Your task to perform on an android device: add a label to a message in the gmail app Image 0: 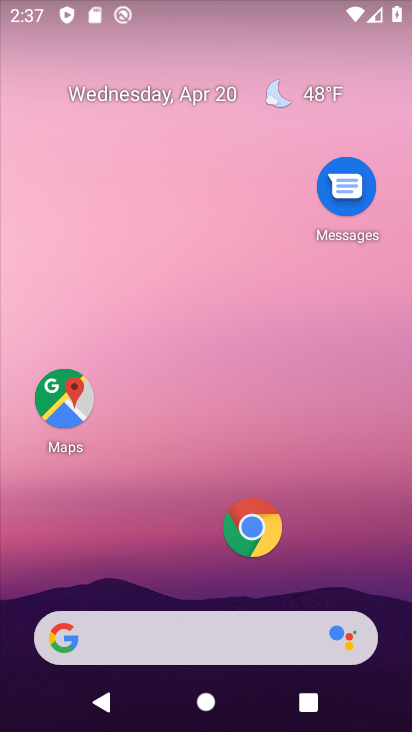
Step 0: drag from (176, 581) to (316, 67)
Your task to perform on an android device: add a label to a message in the gmail app Image 1: 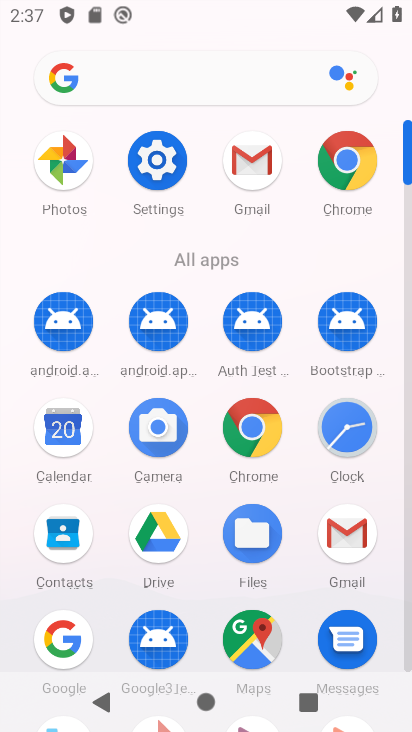
Step 1: click (246, 159)
Your task to perform on an android device: add a label to a message in the gmail app Image 2: 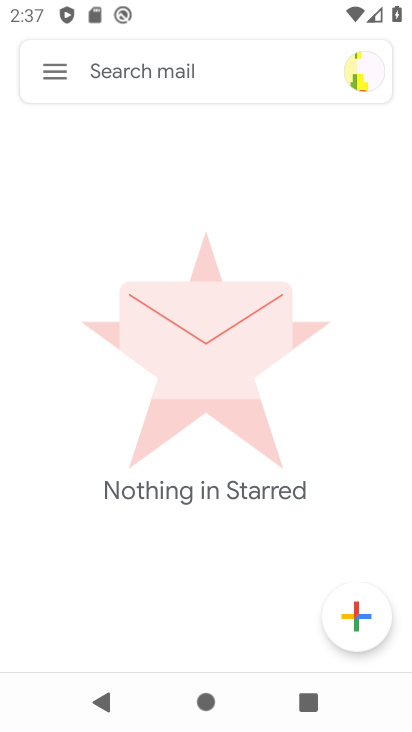
Step 2: task complete